Your task to perform on an android device: Open network settings Image 0: 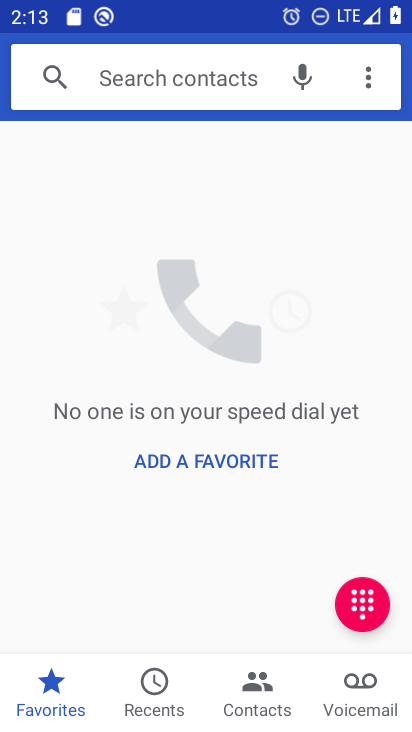
Step 0: press home button
Your task to perform on an android device: Open network settings Image 1: 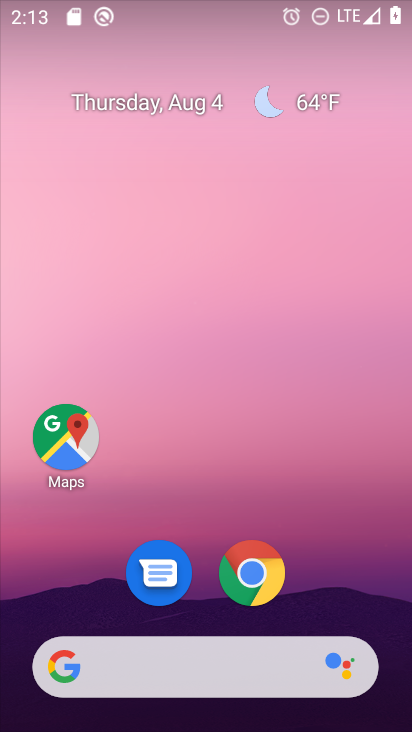
Step 1: drag from (344, 590) to (280, 87)
Your task to perform on an android device: Open network settings Image 2: 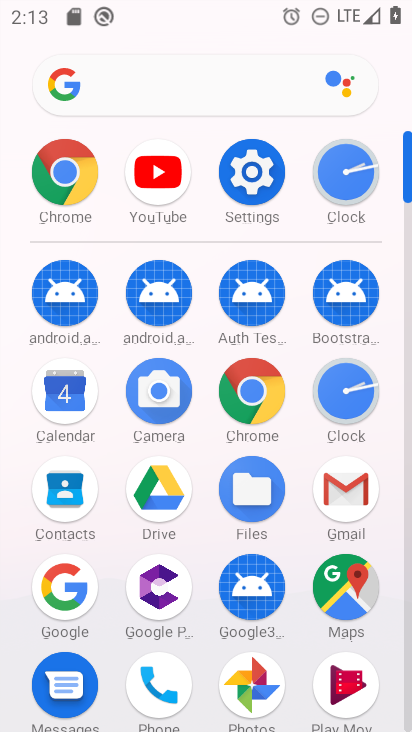
Step 2: click (253, 174)
Your task to perform on an android device: Open network settings Image 3: 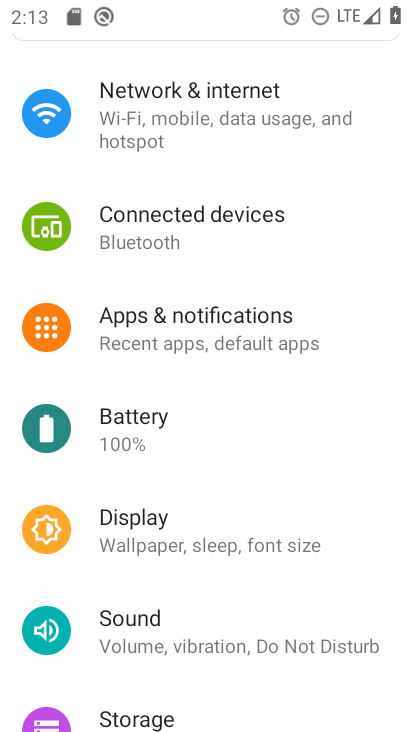
Step 3: click (243, 114)
Your task to perform on an android device: Open network settings Image 4: 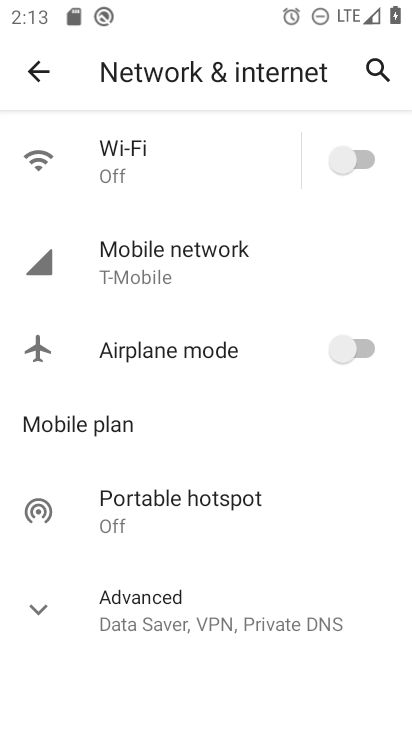
Step 4: task complete